Your task to perform on an android device: turn on bluetooth scan Image 0: 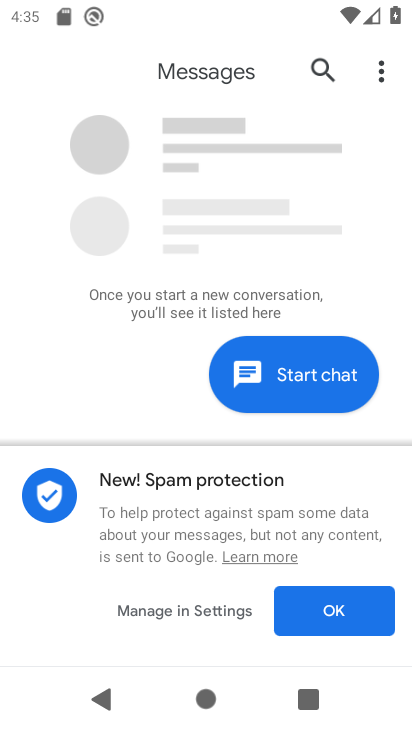
Step 0: press home button
Your task to perform on an android device: turn on bluetooth scan Image 1: 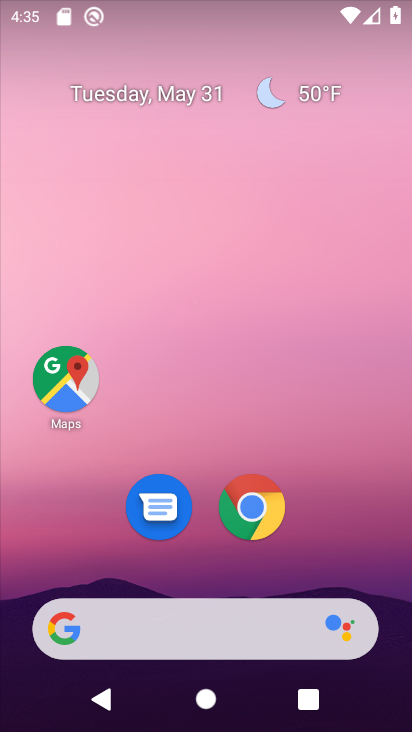
Step 1: drag from (326, 533) to (255, 23)
Your task to perform on an android device: turn on bluetooth scan Image 2: 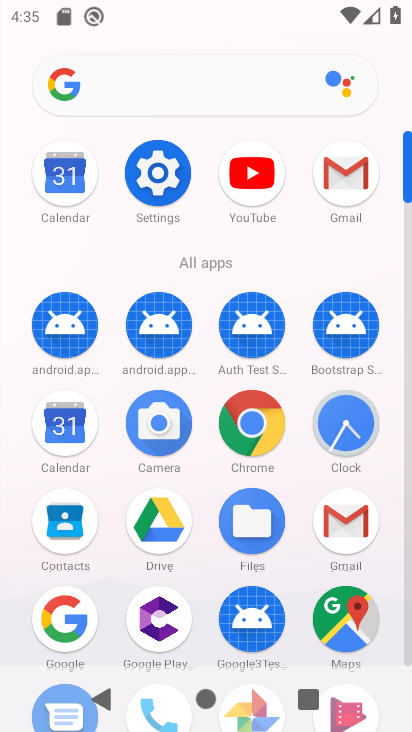
Step 2: click (152, 168)
Your task to perform on an android device: turn on bluetooth scan Image 3: 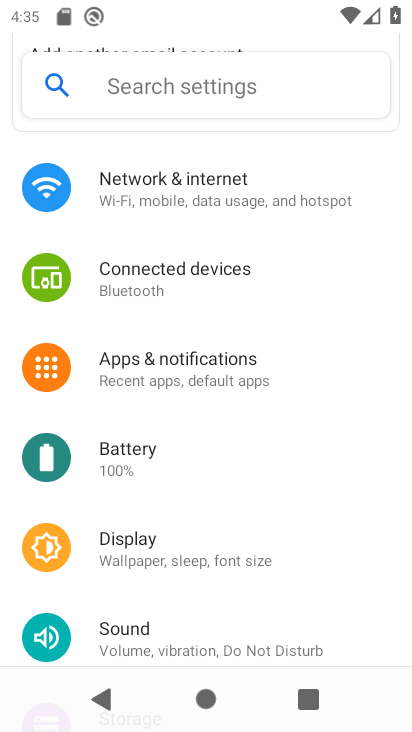
Step 3: drag from (203, 460) to (206, 82)
Your task to perform on an android device: turn on bluetooth scan Image 4: 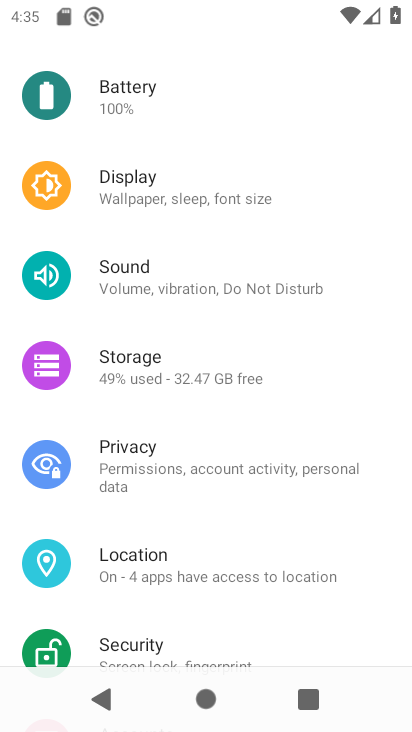
Step 4: click (243, 547)
Your task to perform on an android device: turn on bluetooth scan Image 5: 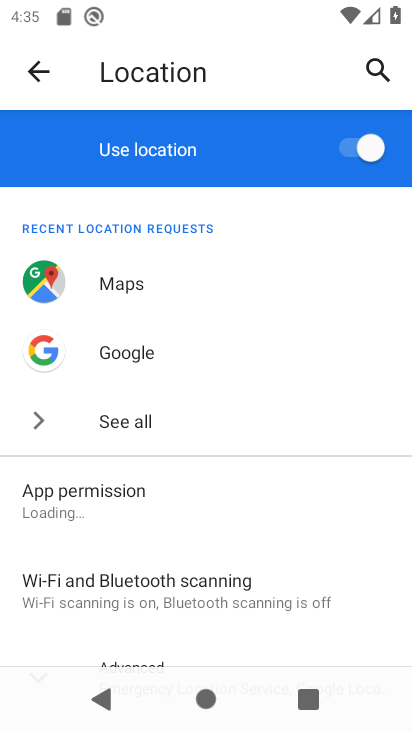
Step 5: click (243, 575)
Your task to perform on an android device: turn on bluetooth scan Image 6: 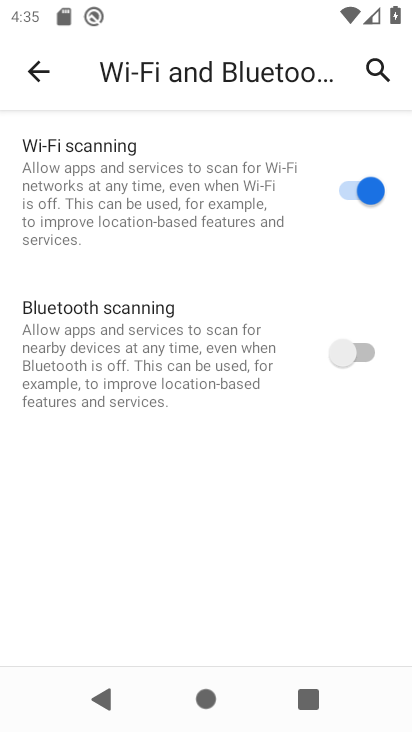
Step 6: click (363, 343)
Your task to perform on an android device: turn on bluetooth scan Image 7: 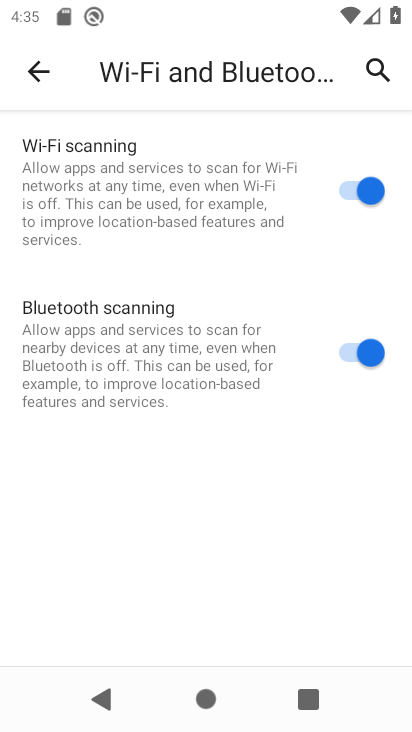
Step 7: task complete